Your task to perform on an android device: Go to ESPN.com Image 0: 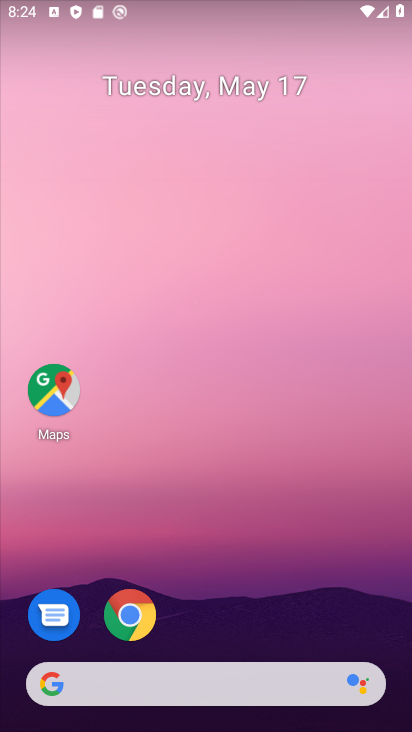
Step 0: click (134, 617)
Your task to perform on an android device: Go to ESPN.com Image 1: 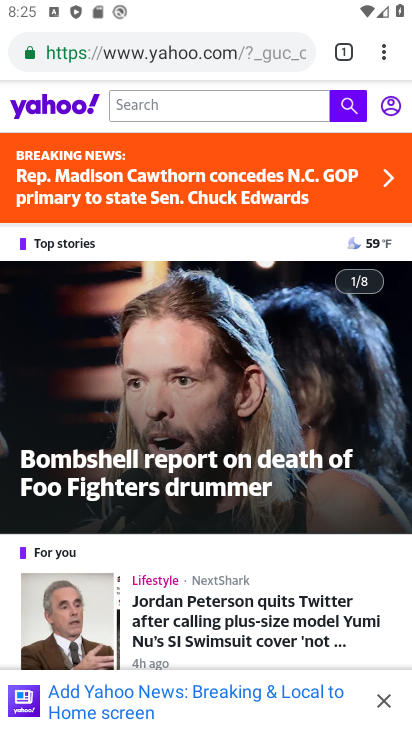
Step 1: click (204, 52)
Your task to perform on an android device: Go to ESPN.com Image 2: 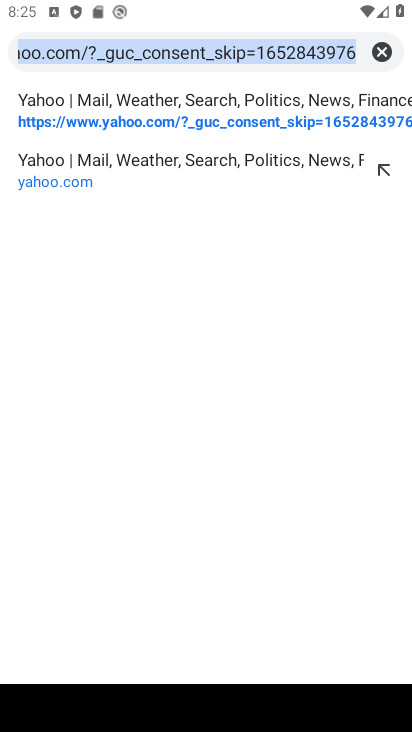
Step 2: click (377, 49)
Your task to perform on an android device: Go to ESPN.com Image 3: 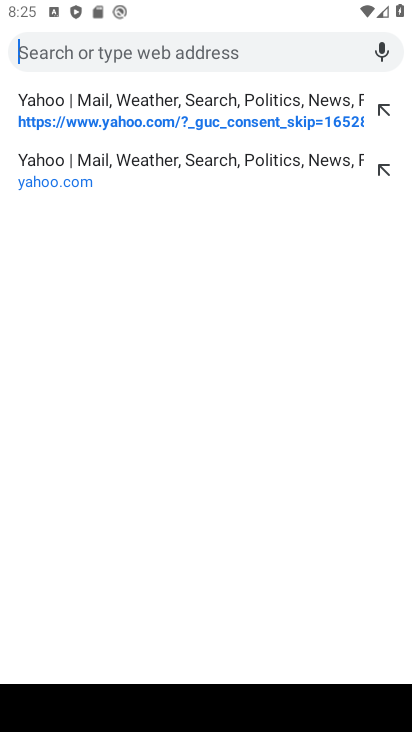
Step 3: type "espn.com"
Your task to perform on an android device: Go to ESPN.com Image 4: 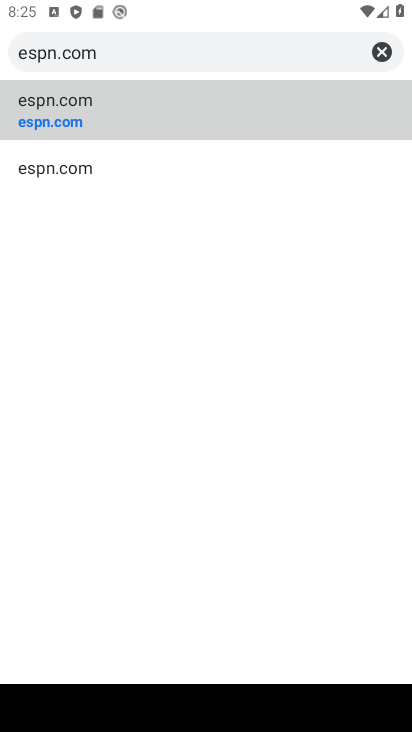
Step 4: click (45, 115)
Your task to perform on an android device: Go to ESPN.com Image 5: 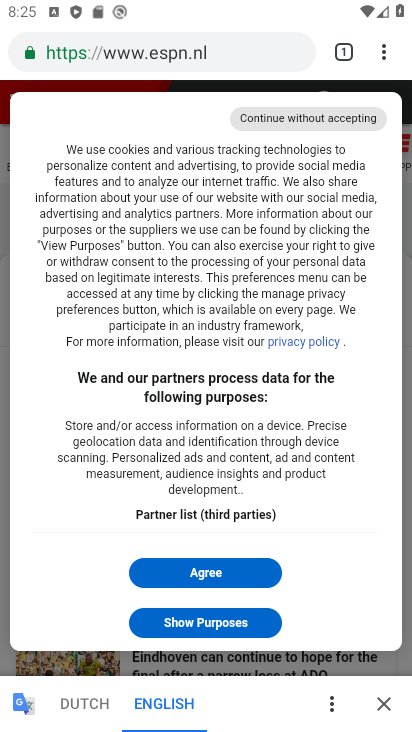
Step 5: task complete